Your task to perform on an android device: Is it going to rain this weekend? Image 0: 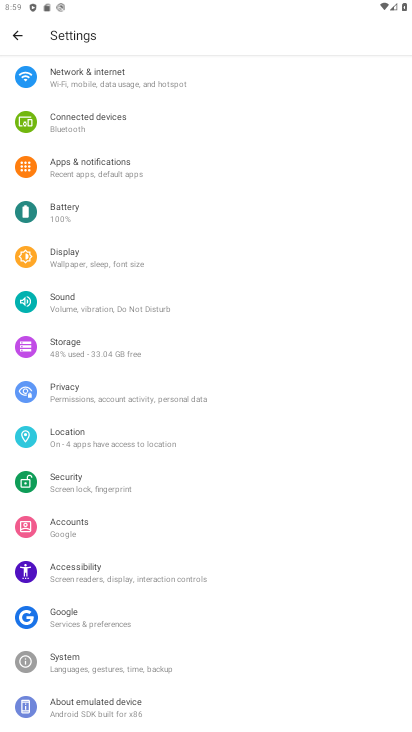
Step 0: press home button
Your task to perform on an android device: Is it going to rain this weekend? Image 1: 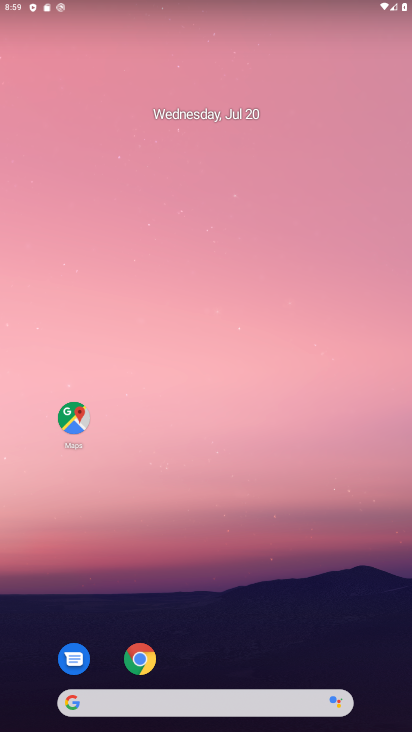
Step 1: drag from (197, 674) to (132, 133)
Your task to perform on an android device: Is it going to rain this weekend? Image 2: 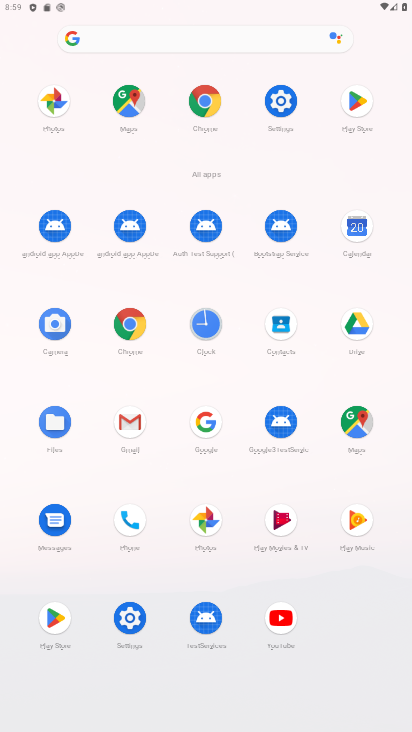
Step 2: click (192, 433)
Your task to perform on an android device: Is it going to rain this weekend? Image 3: 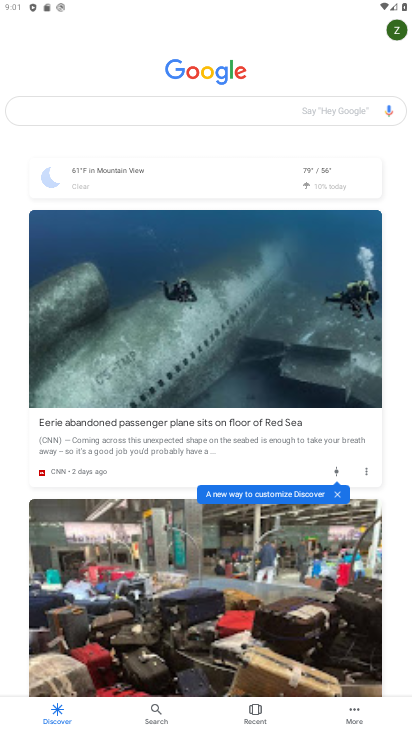
Step 3: click (96, 93)
Your task to perform on an android device: Is it going to rain this weekend? Image 4: 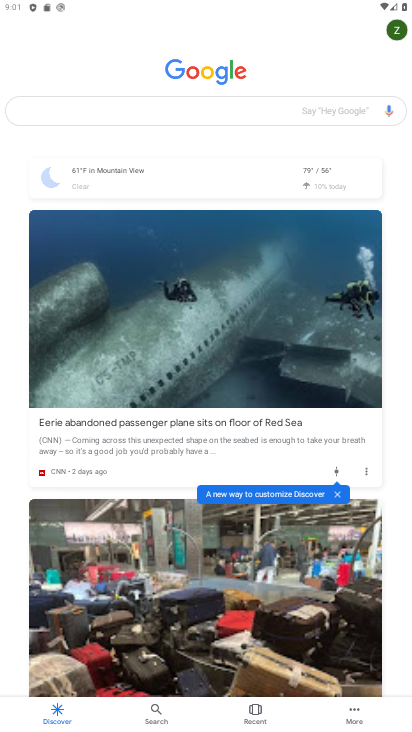
Step 4: click (173, 170)
Your task to perform on an android device: Is it going to rain this weekend? Image 5: 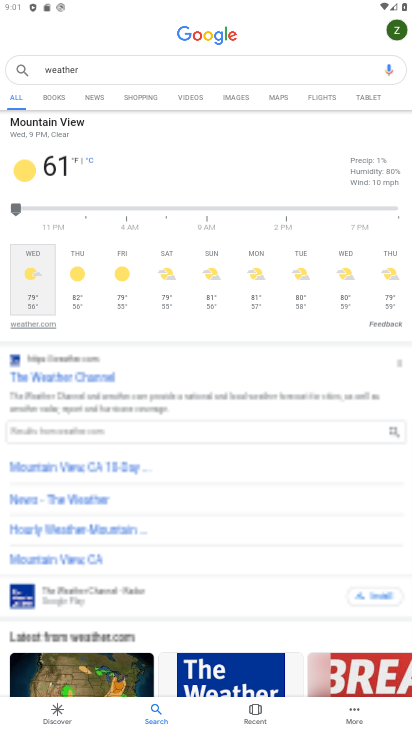
Step 5: task complete